Your task to perform on an android device: empty trash in google photos Image 0: 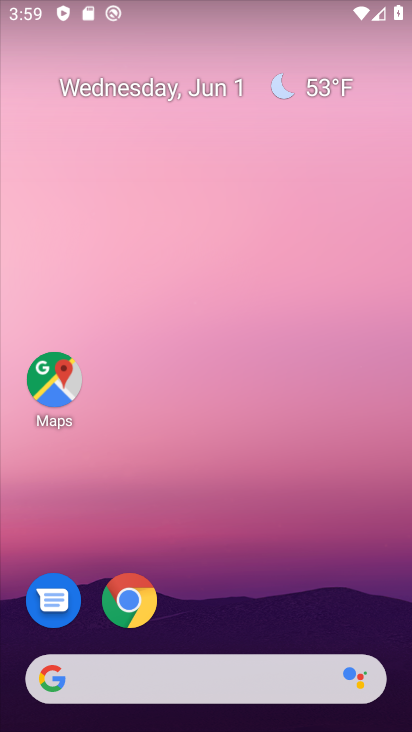
Step 0: drag from (217, 725) to (226, 17)
Your task to perform on an android device: empty trash in google photos Image 1: 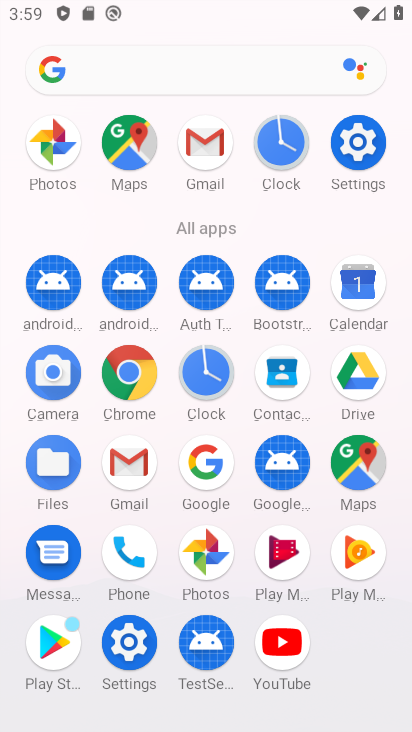
Step 1: click (56, 155)
Your task to perform on an android device: empty trash in google photos Image 2: 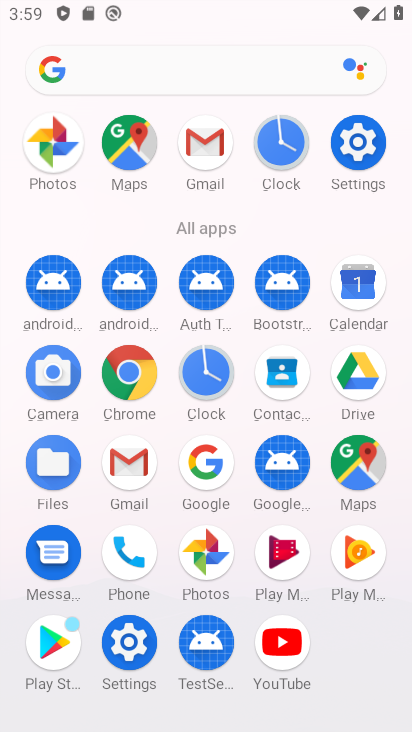
Step 2: drag from (57, 153) to (96, 169)
Your task to perform on an android device: empty trash in google photos Image 3: 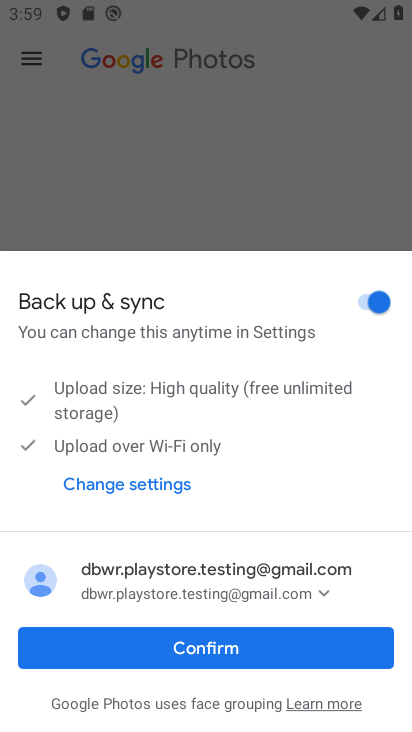
Step 3: click (216, 650)
Your task to perform on an android device: empty trash in google photos Image 4: 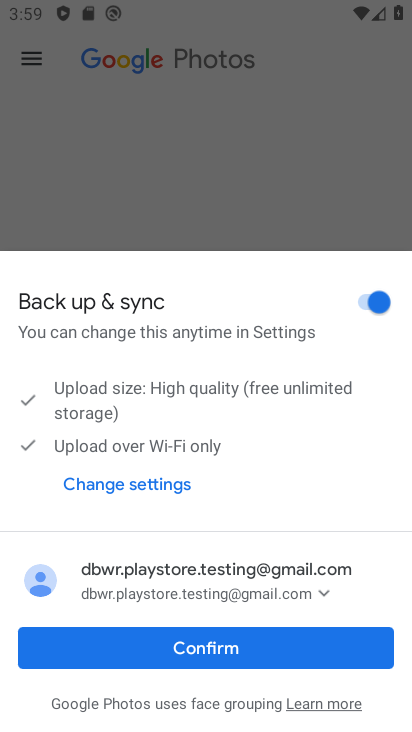
Step 4: click (216, 650)
Your task to perform on an android device: empty trash in google photos Image 5: 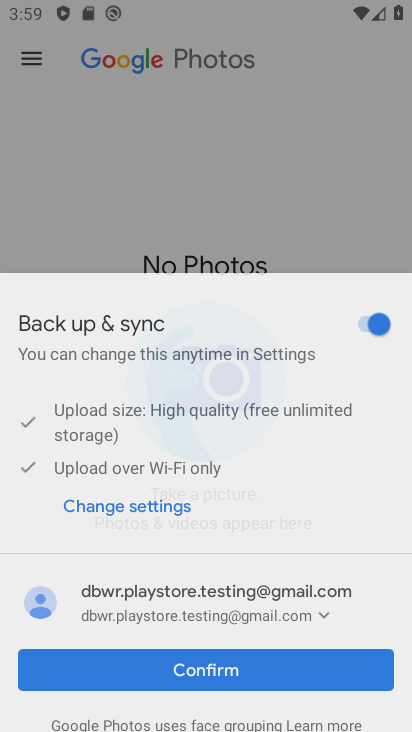
Step 5: click (216, 650)
Your task to perform on an android device: empty trash in google photos Image 6: 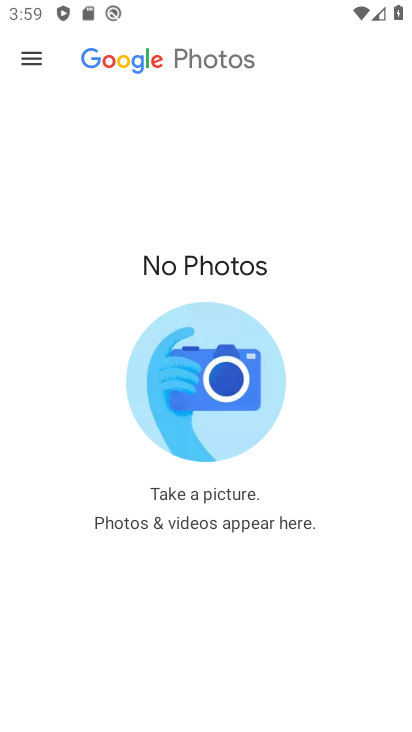
Step 6: click (220, 647)
Your task to perform on an android device: empty trash in google photos Image 7: 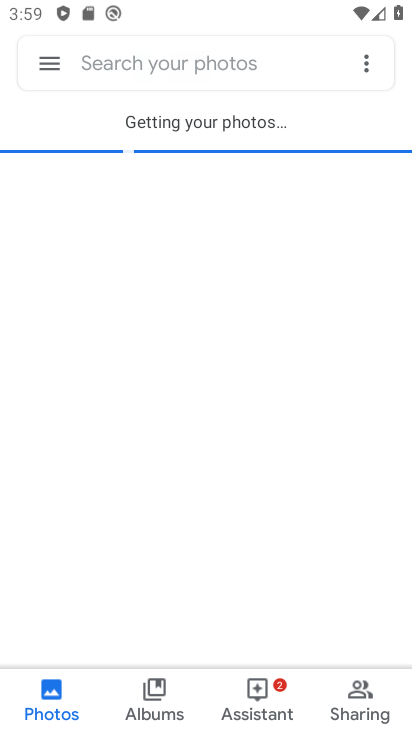
Step 7: drag from (47, 61) to (66, 194)
Your task to perform on an android device: empty trash in google photos Image 8: 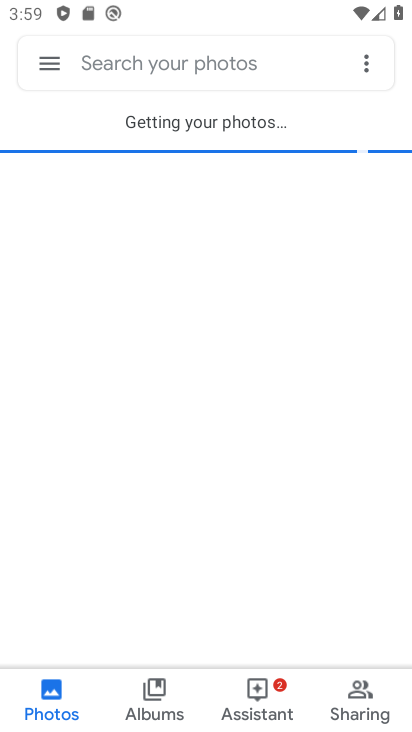
Step 8: click (50, 67)
Your task to perform on an android device: empty trash in google photos Image 9: 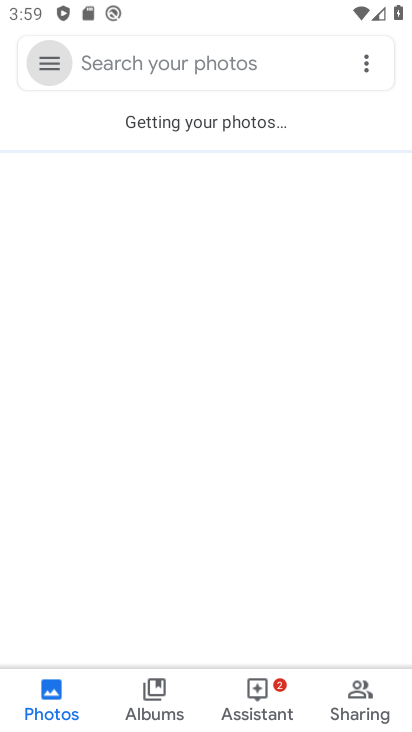
Step 9: click (50, 67)
Your task to perform on an android device: empty trash in google photos Image 10: 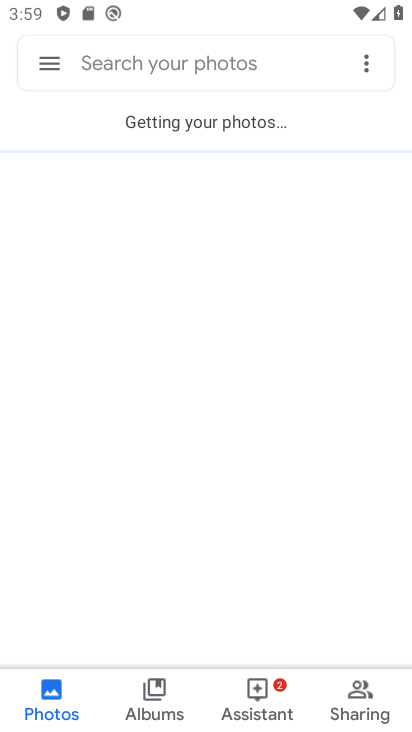
Step 10: click (47, 67)
Your task to perform on an android device: empty trash in google photos Image 11: 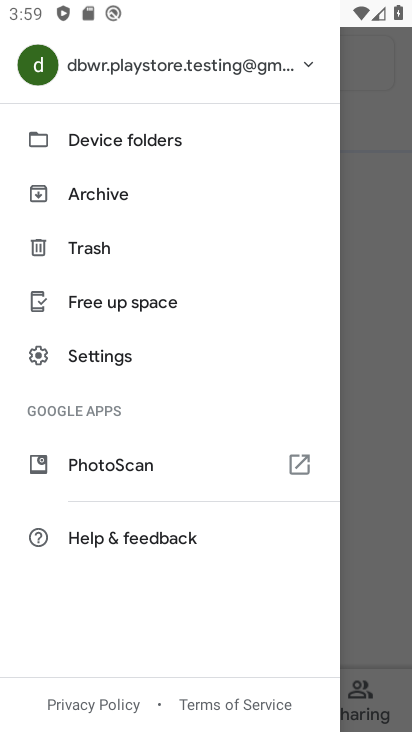
Step 11: click (89, 247)
Your task to perform on an android device: empty trash in google photos Image 12: 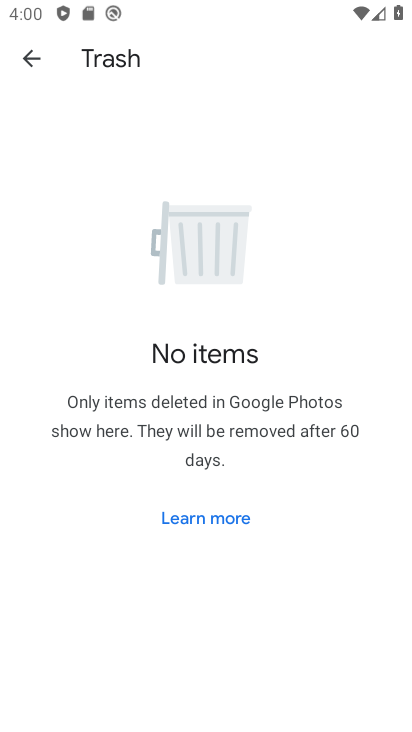
Step 12: task complete